Your task to perform on an android device: Go to notification settings Image 0: 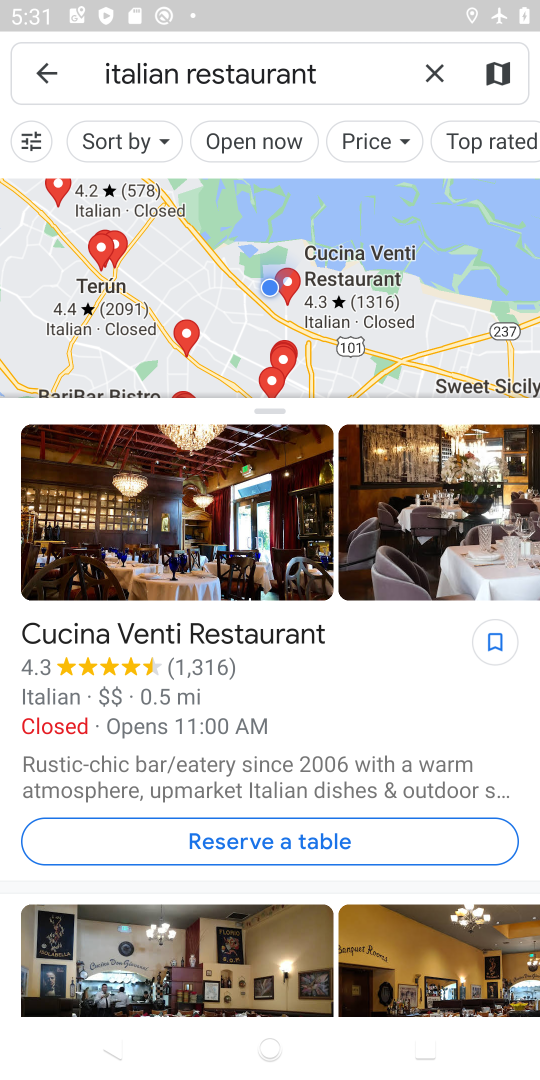
Step 0: press home button
Your task to perform on an android device: Go to notification settings Image 1: 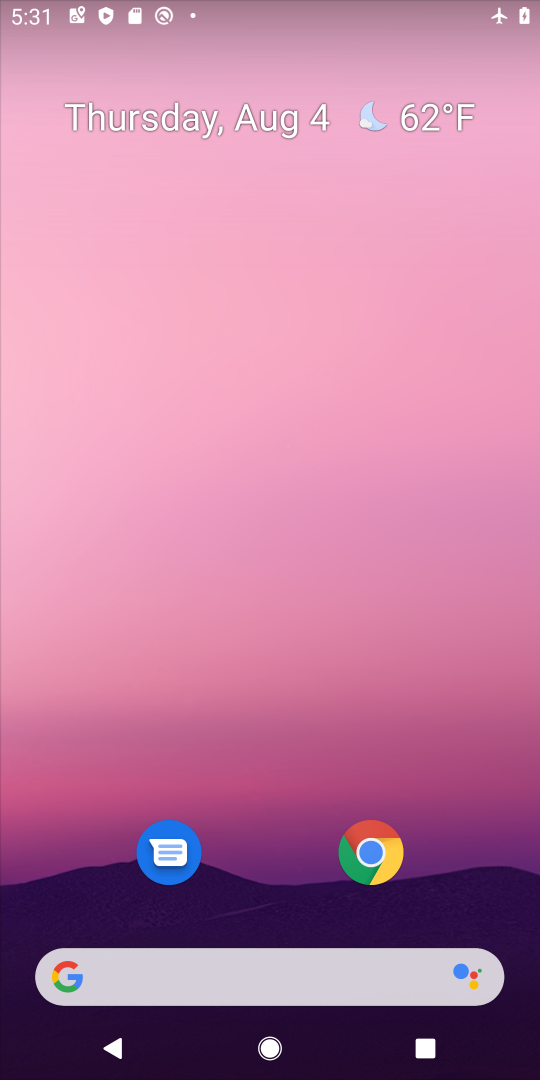
Step 1: drag from (292, 887) to (265, 207)
Your task to perform on an android device: Go to notification settings Image 2: 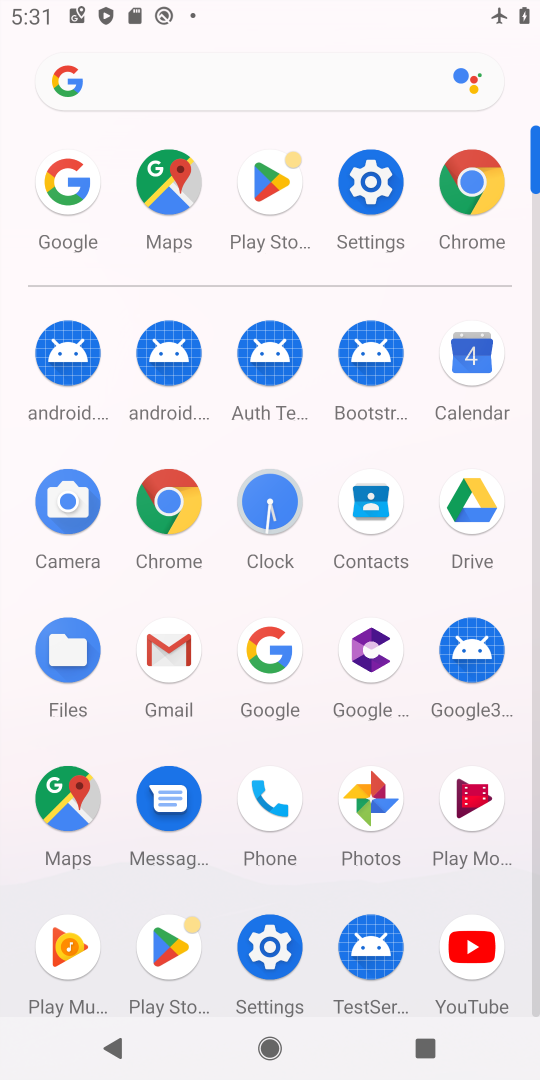
Step 2: click (377, 168)
Your task to perform on an android device: Go to notification settings Image 3: 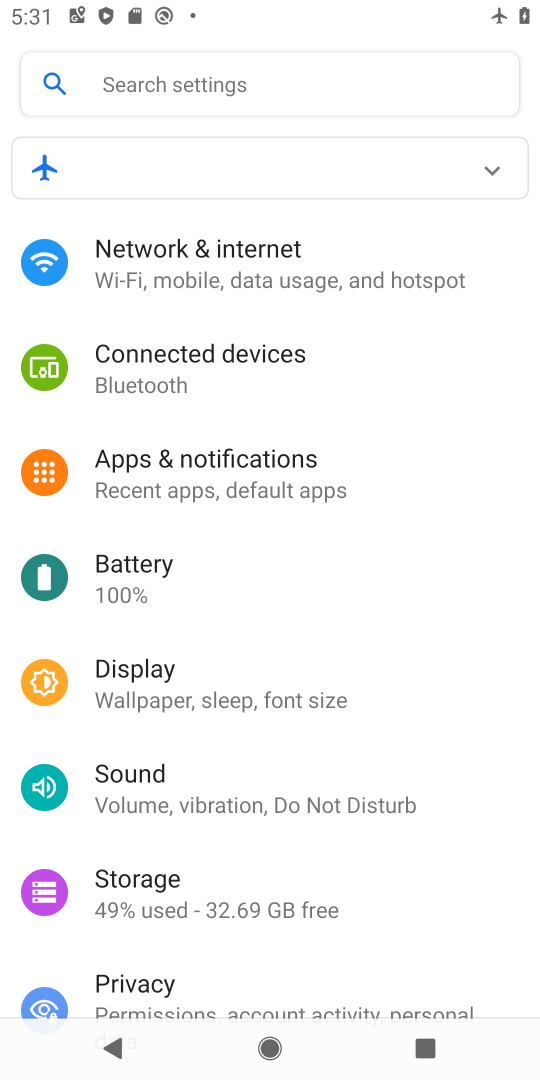
Step 3: click (200, 459)
Your task to perform on an android device: Go to notification settings Image 4: 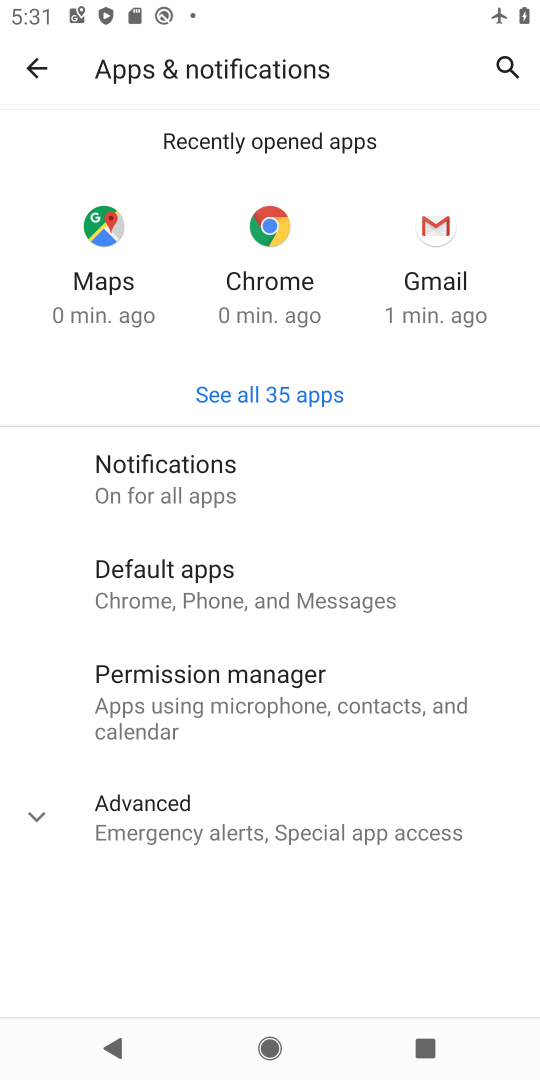
Step 4: click (149, 493)
Your task to perform on an android device: Go to notification settings Image 5: 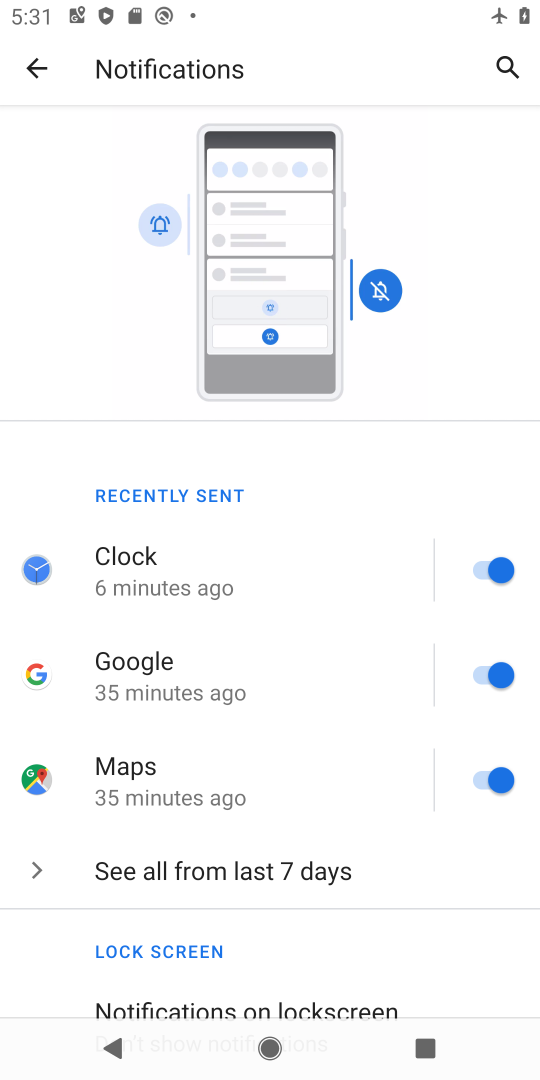
Step 5: task complete